Your task to perform on an android device: Turn off the flashlight Image 0: 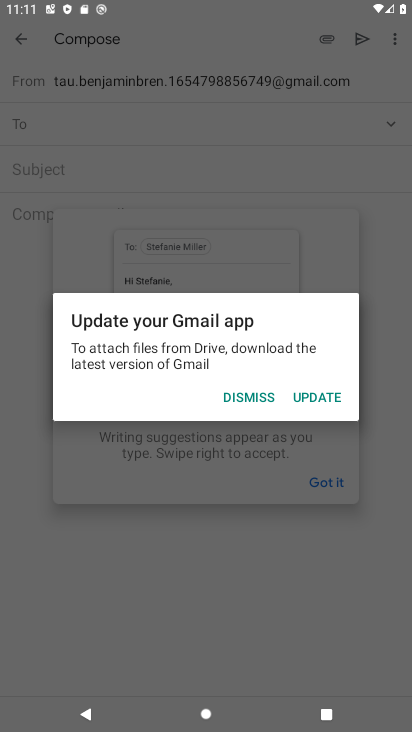
Step 0: press home button
Your task to perform on an android device: Turn off the flashlight Image 1: 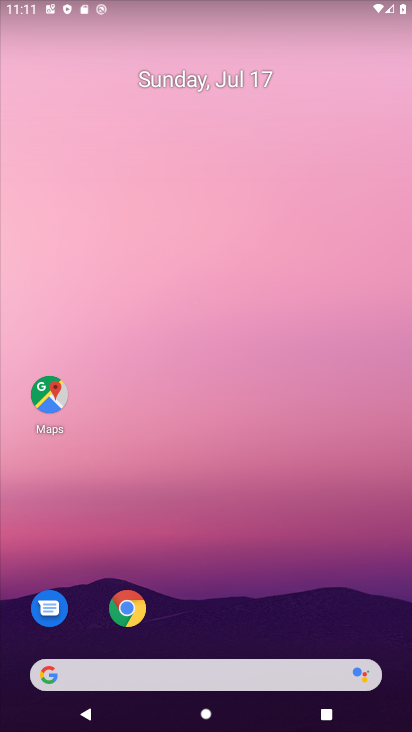
Step 1: drag from (195, 636) to (197, 119)
Your task to perform on an android device: Turn off the flashlight Image 2: 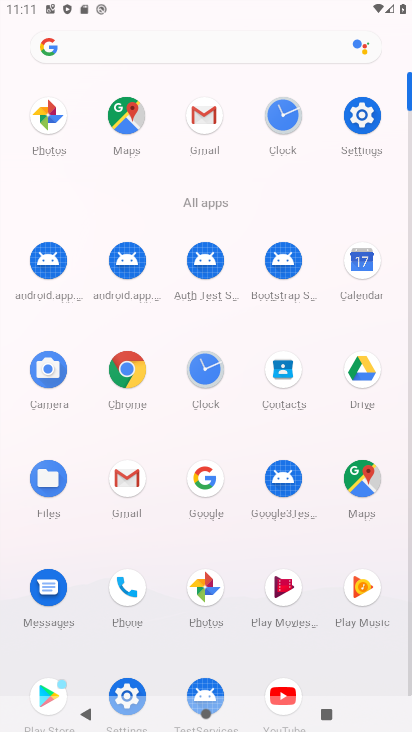
Step 2: click (125, 687)
Your task to perform on an android device: Turn off the flashlight Image 3: 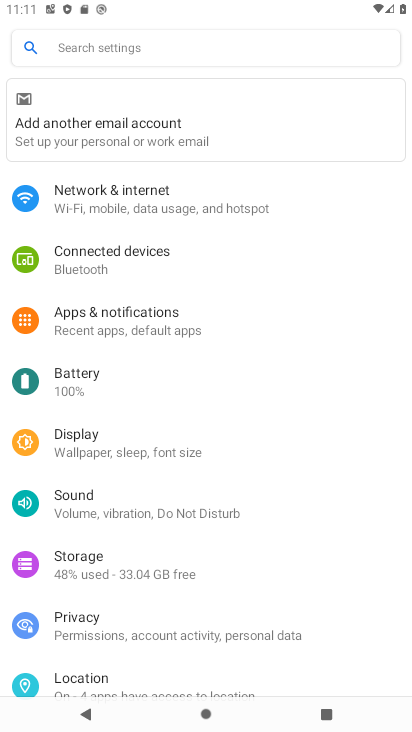
Step 3: task complete